Your task to perform on an android device: Open Google Image 0: 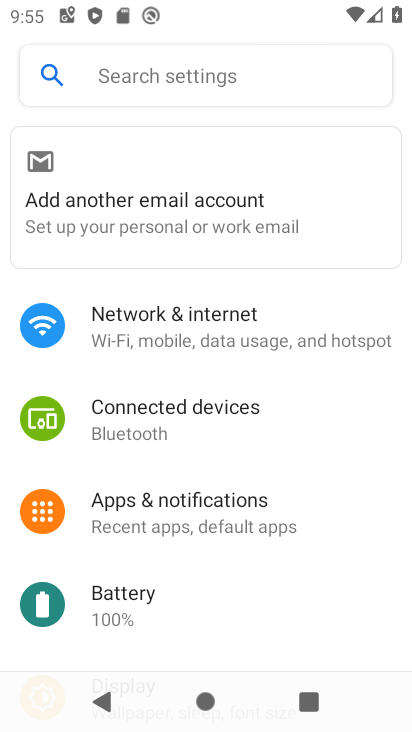
Step 0: press home button
Your task to perform on an android device: Open Google Image 1: 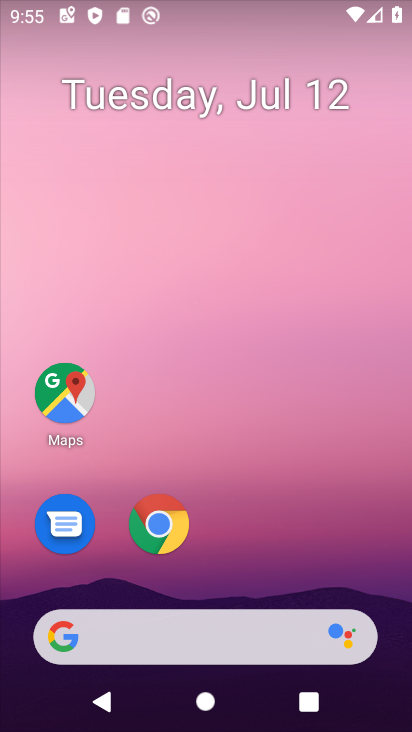
Step 1: drag from (288, 547) to (321, 94)
Your task to perform on an android device: Open Google Image 2: 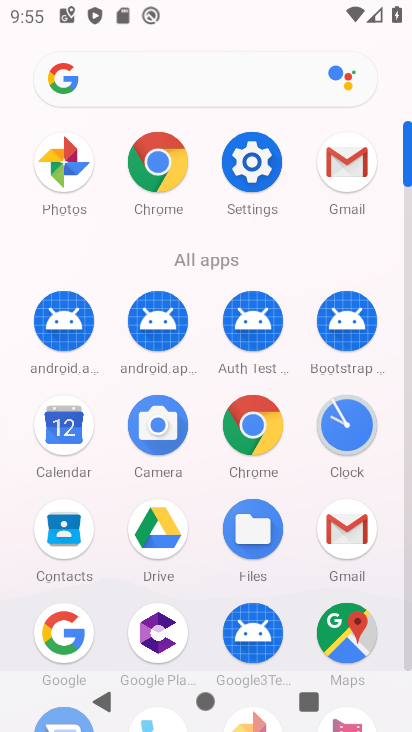
Step 2: click (58, 635)
Your task to perform on an android device: Open Google Image 3: 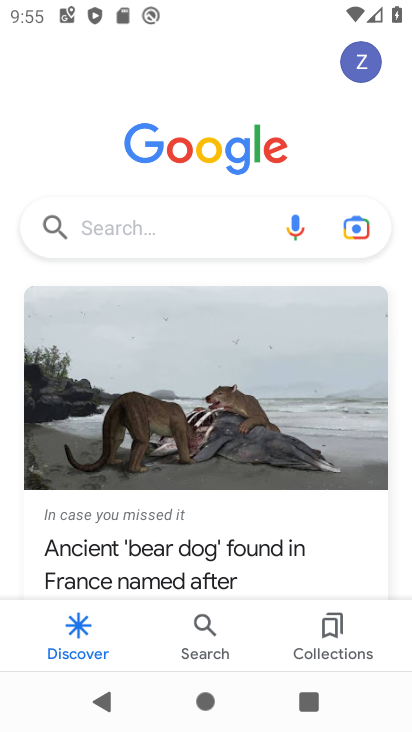
Step 3: task complete